Your task to perform on an android device: delete browsing data in the chrome app Image 0: 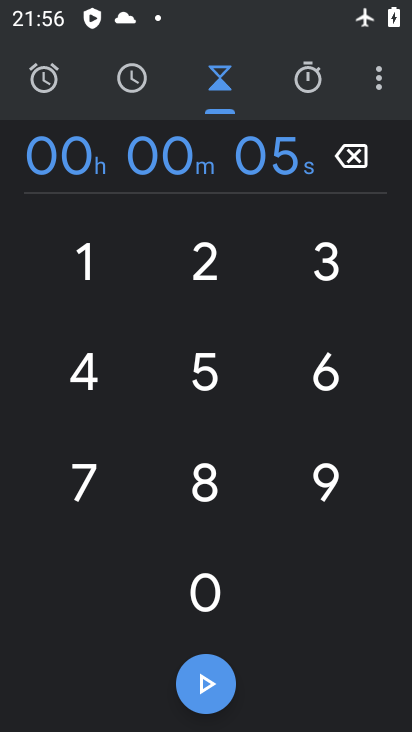
Step 0: press home button
Your task to perform on an android device: delete browsing data in the chrome app Image 1: 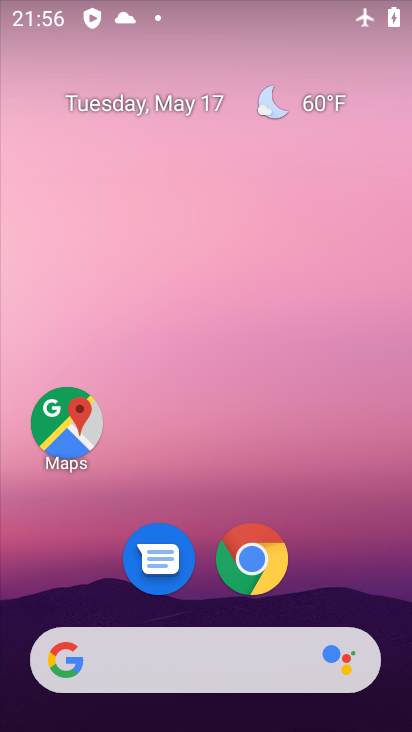
Step 1: click (264, 554)
Your task to perform on an android device: delete browsing data in the chrome app Image 2: 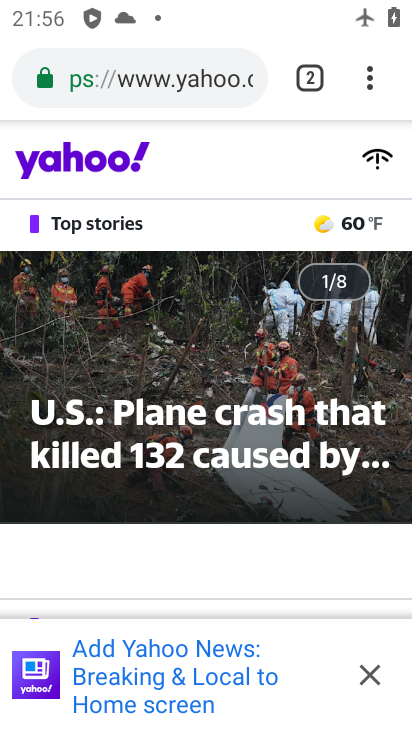
Step 2: drag from (378, 77) to (102, 200)
Your task to perform on an android device: delete browsing data in the chrome app Image 3: 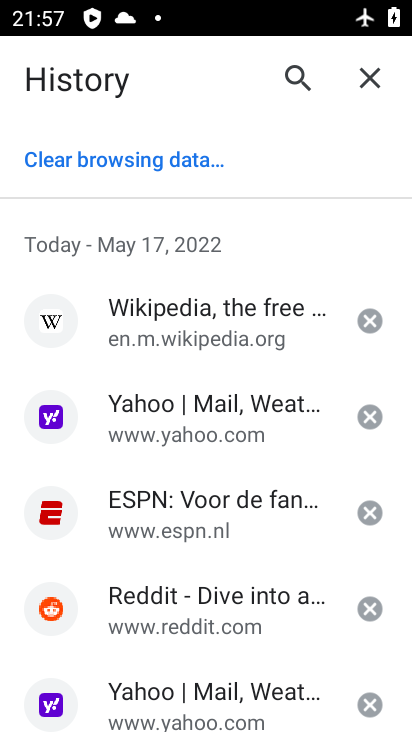
Step 3: click (174, 163)
Your task to perform on an android device: delete browsing data in the chrome app Image 4: 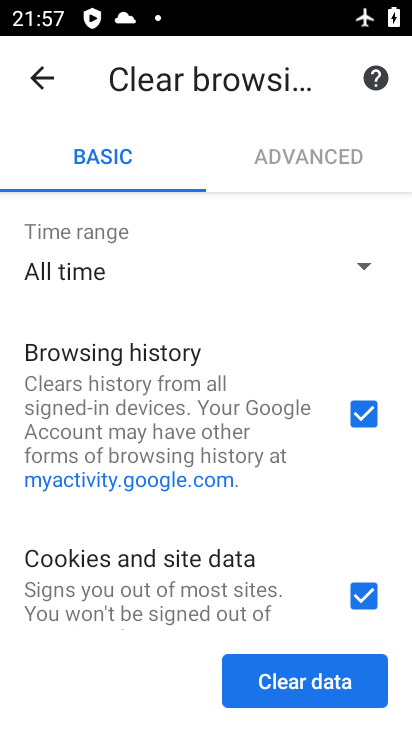
Step 4: drag from (203, 482) to (249, 121)
Your task to perform on an android device: delete browsing data in the chrome app Image 5: 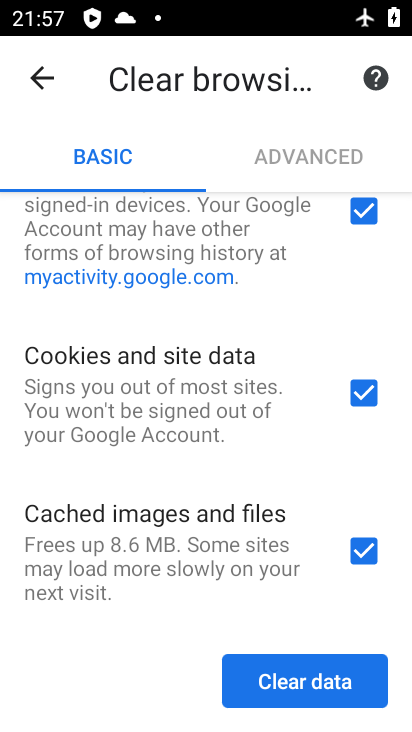
Step 5: click (300, 683)
Your task to perform on an android device: delete browsing data in the chrome app Image 6: 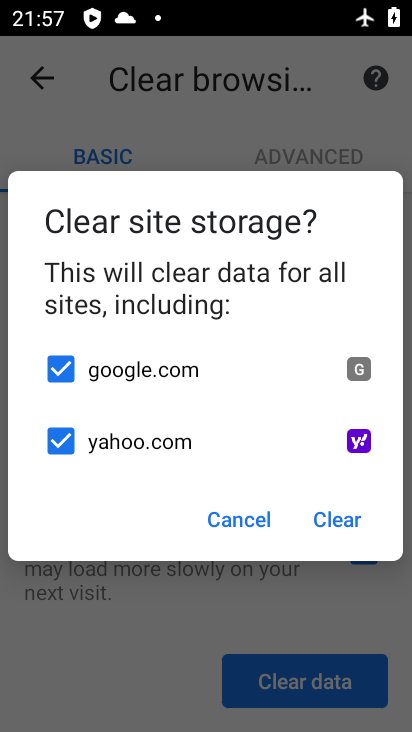
Step 6: click (346, 525)
Your task to perform on an android device: delete browsing data in the chrome app Image 7: 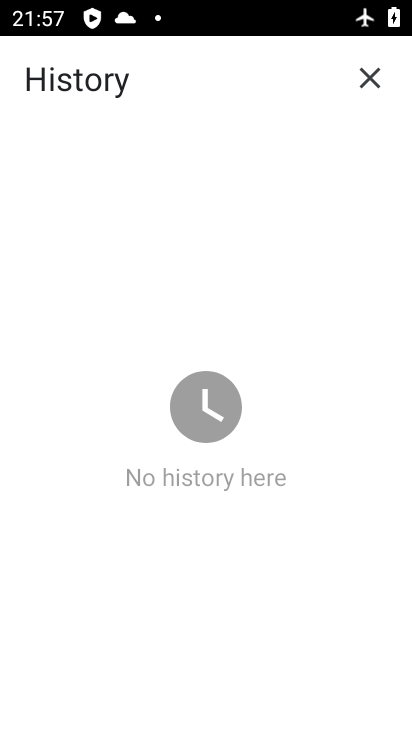
Step 7: task complete